Your task to perform on an android device: Search for "macbook pro 15 inch" on walmart, select the first entry, and add it to the cart. Image 0: 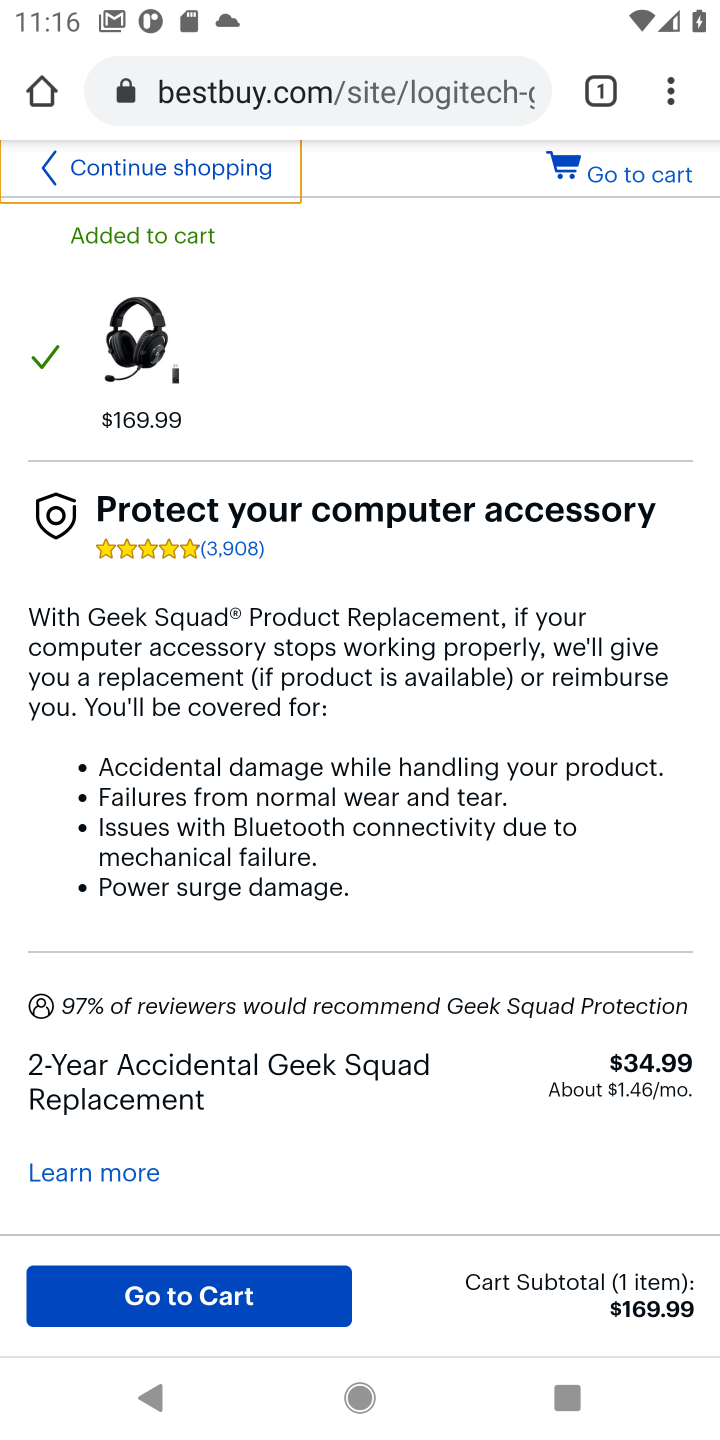
Step 0: press home button
Your task to perform on an android device: Search for "macbook pro 15 inch" on walmart, select the first entry, and add it to the cart. Image 1: 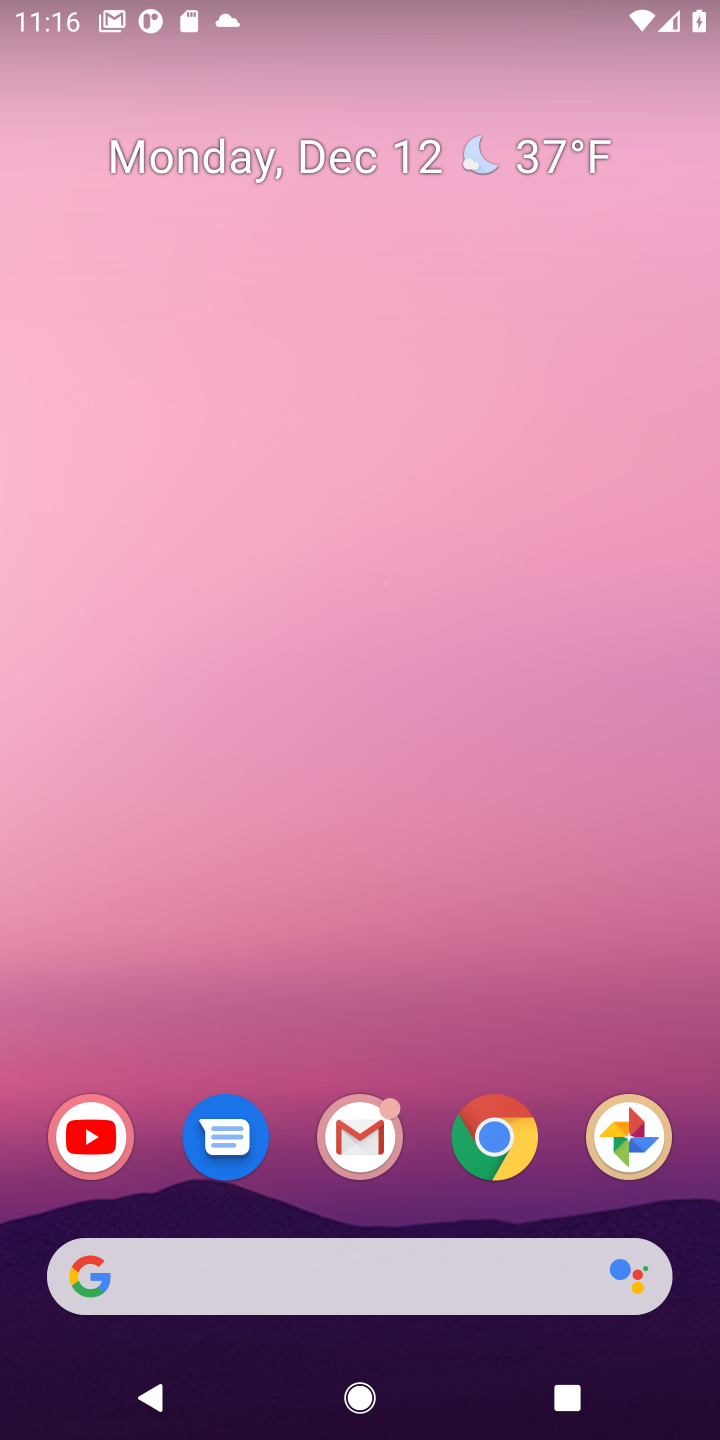
Step 1: click (328, 1272)
Your task to perform on an android device: Search for "macbook pro 15 inch" on walmart, select the first entry, and add it to the cart. Image 2: 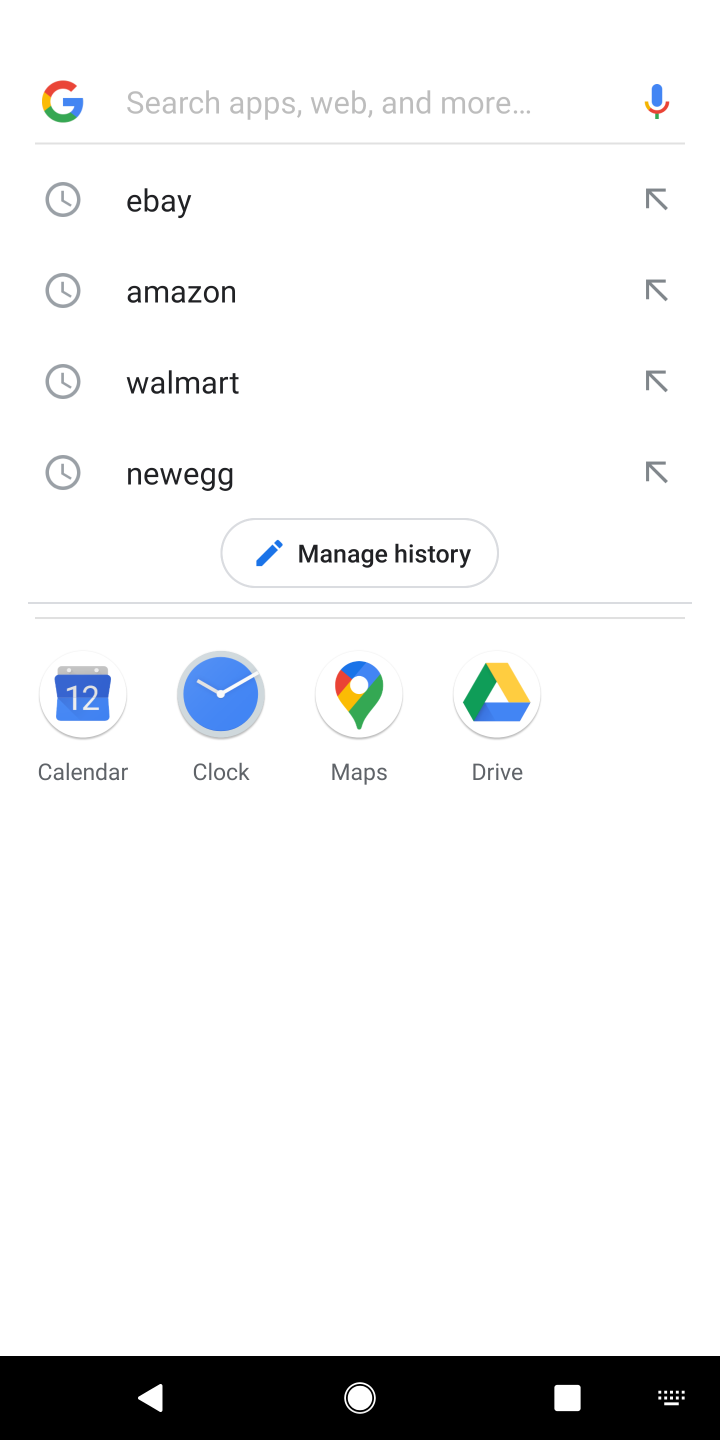
Step 2: click (290, 405)
Your task to perform on an android device: Search for "macbook pro 15 inch" on walmart, select the first entry, and add it to the cart. Image 3: 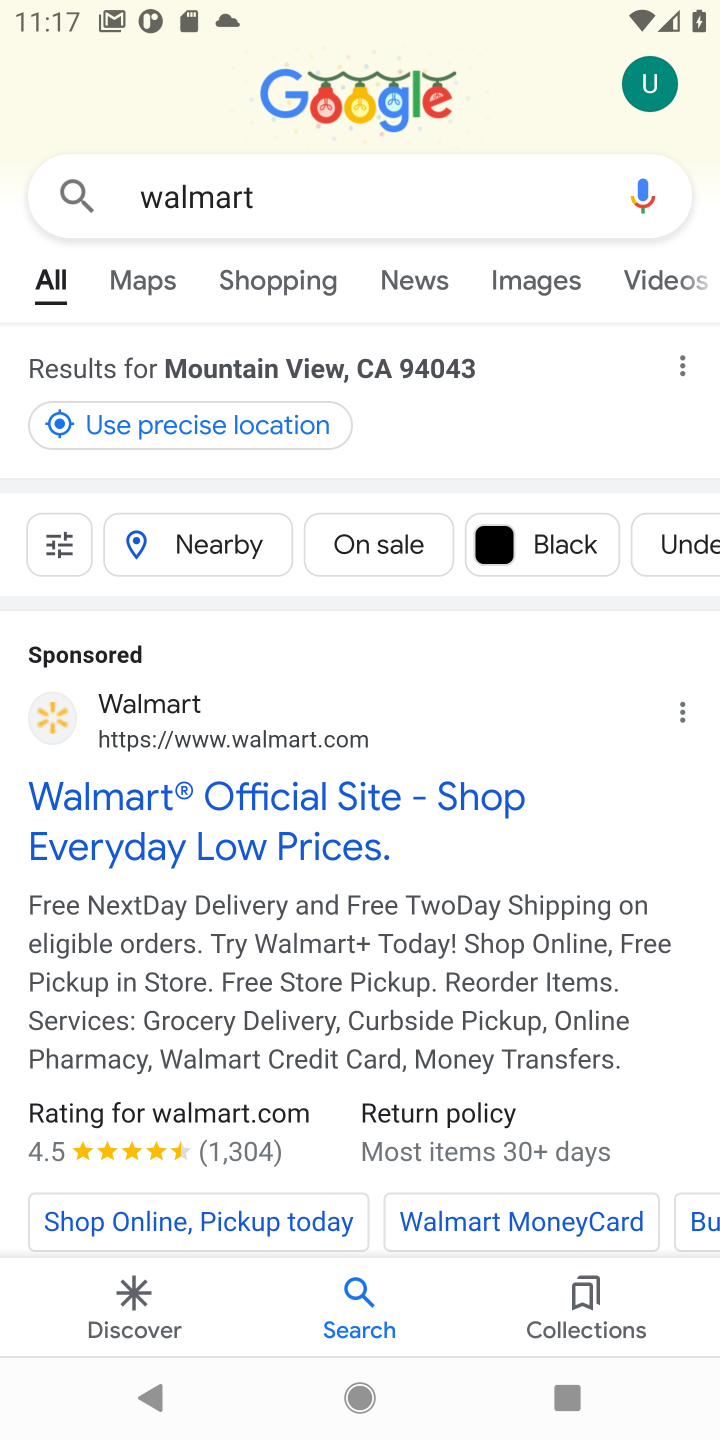
Step 3: click (206, 831)
Your task to perform on an android device: Search for "macbook pro 15 inch" on walmart, select the first entry, and add it to the cart. Image 4: 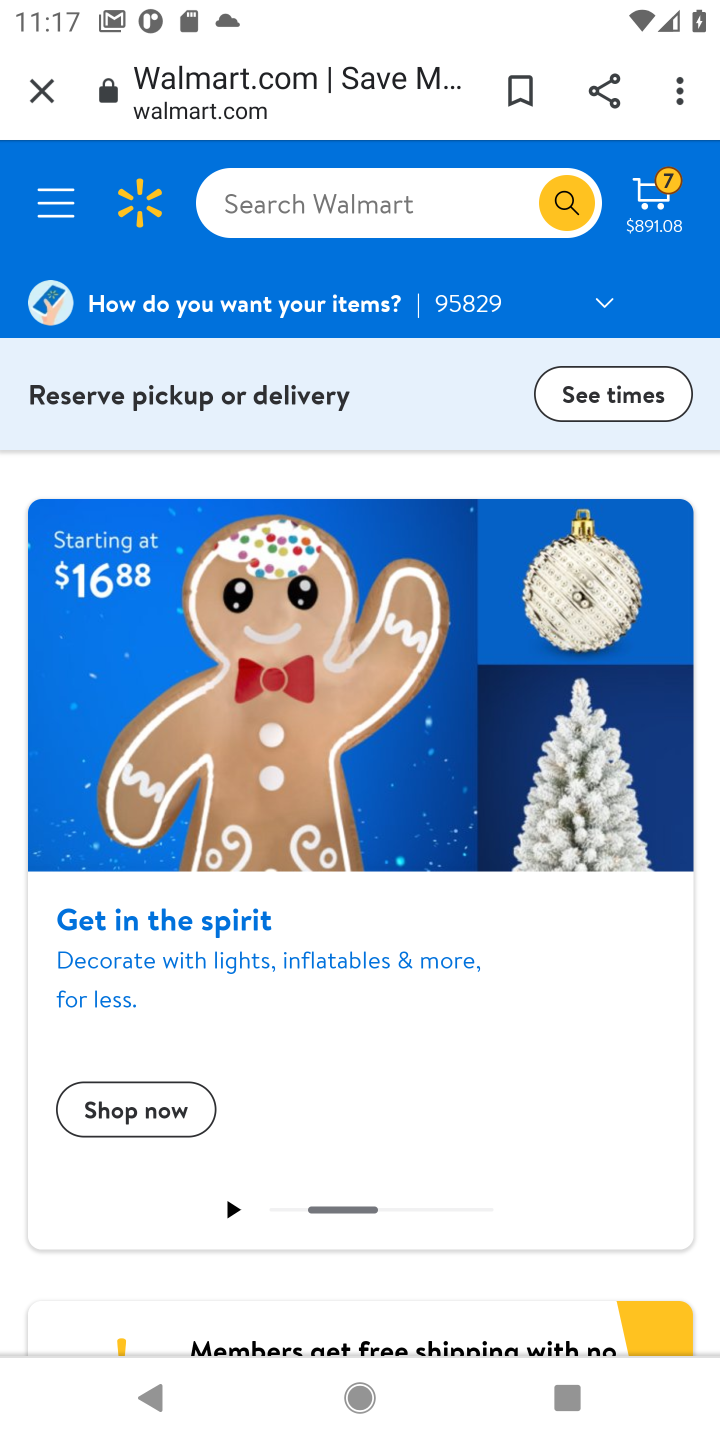
Step 4: click (351, 223)
Your task to perform on an android device: Search for "macbook pro 15 inch" on walmart, select the first entry, and add it to the cart. Image 5: 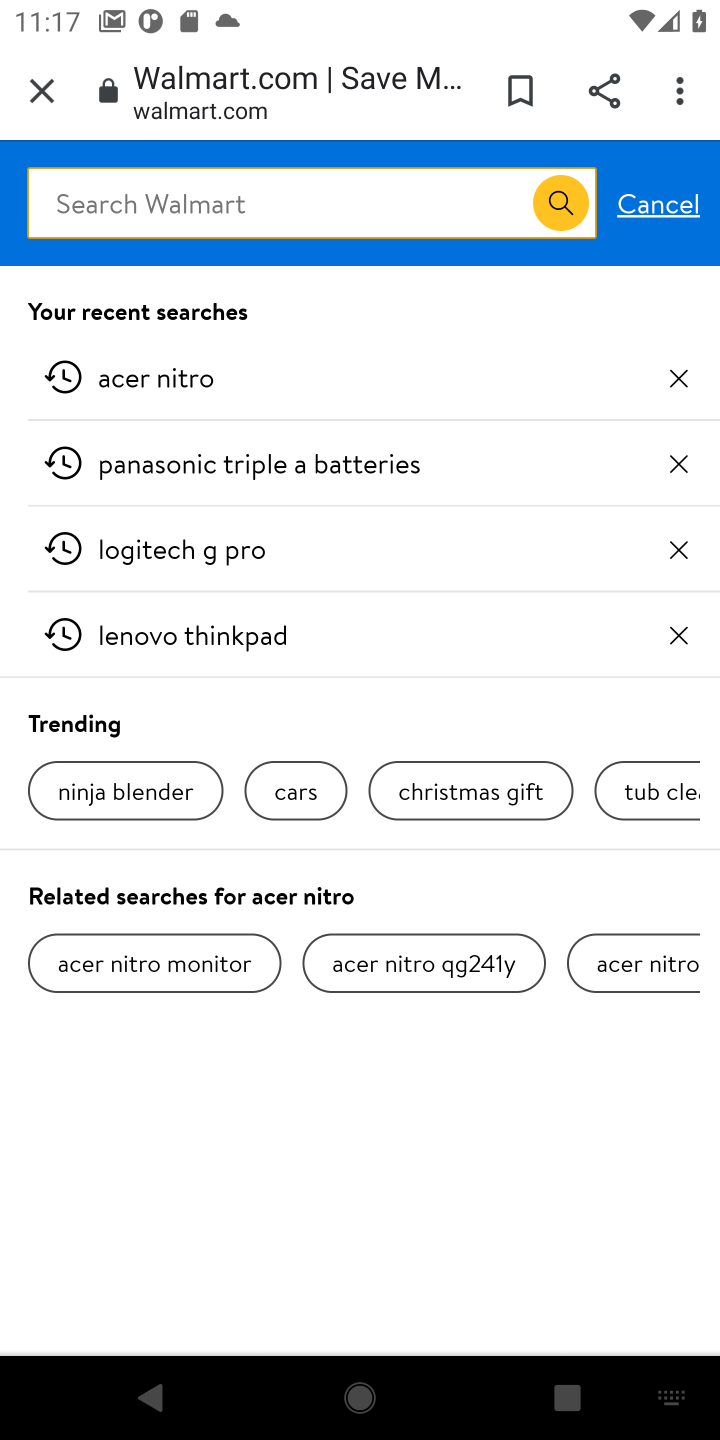
Step 5: type "macbook pro 15"
Your task to perform on an android device: Search for "macbook pro 15 inch" on walmart, select the first entry, and add it to the cart. Image 6: 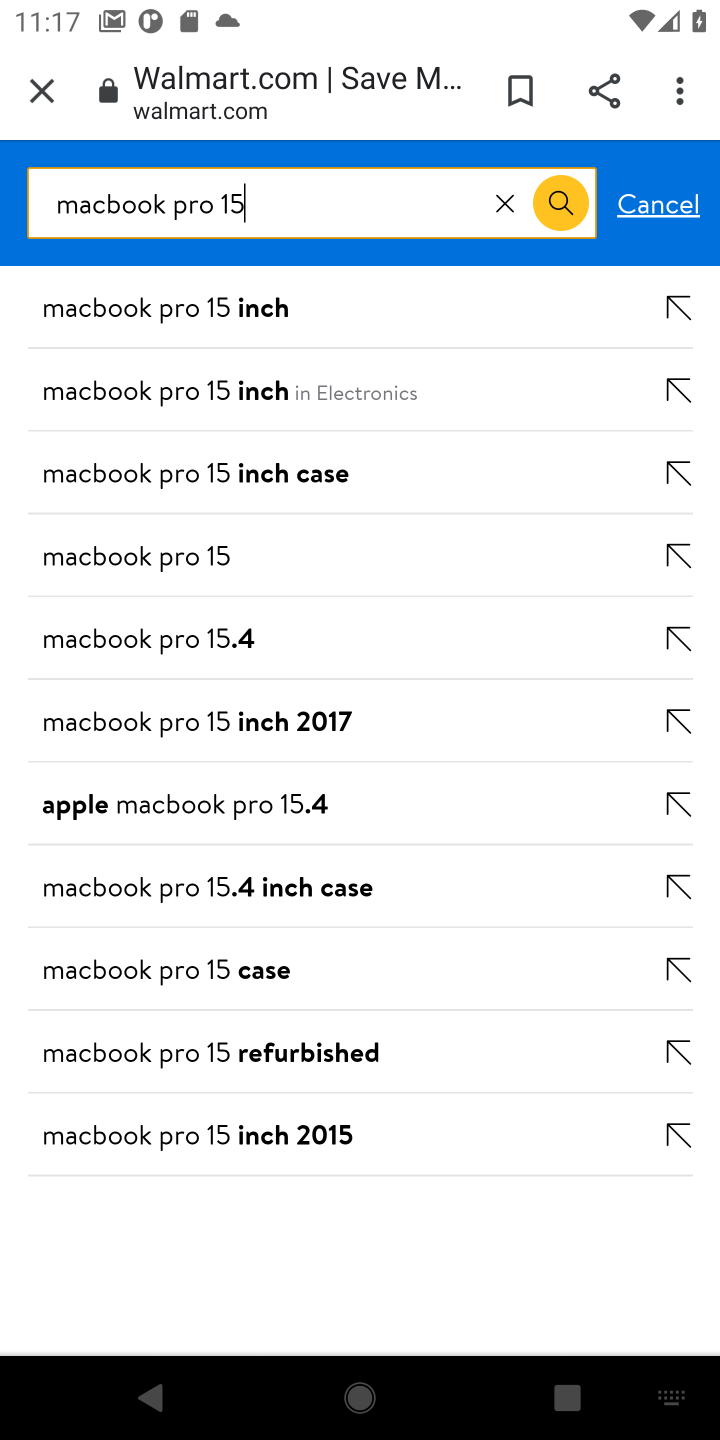
Step 6: click (223, 299)
Your task to perform on an android device: Search for "macbook pro 15 inch" on walmart, select the first entry, and add it to the cart. Image 7: 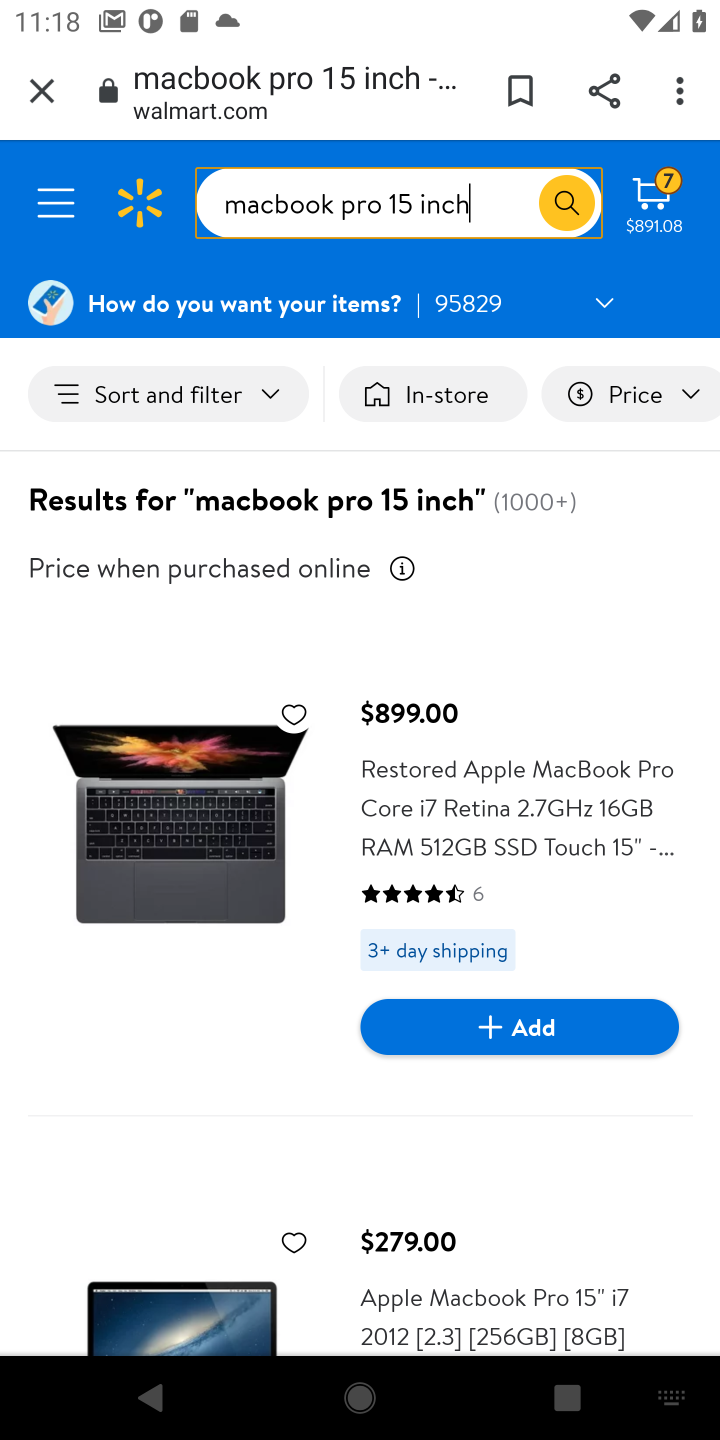
Step 7: click (439, 1027)
Your task to perform on an android device: Search for "macbook pro 15 inch" on walmart, select the first entry, and add it to the cart. Image 8: 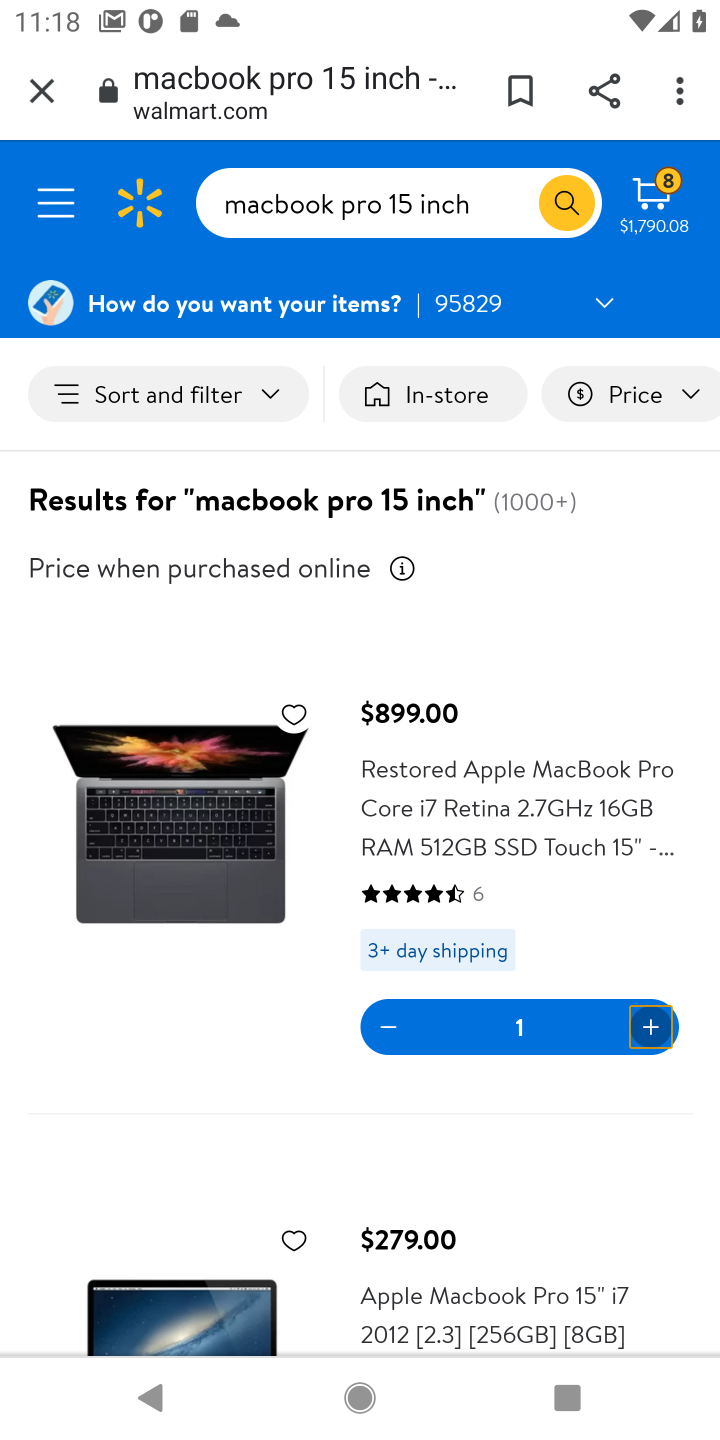
Step 8: task complete